Your task to perform on an android device: Play the last video I watched on Youtube Image 0: 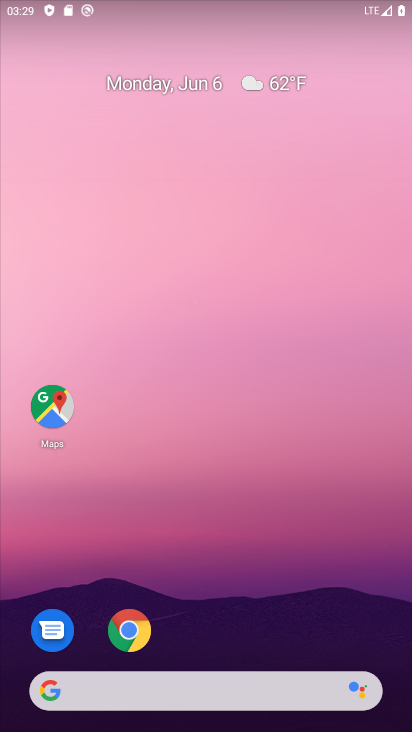
Step 0: drag from (294, 628) to (263, 71)
Your task to perform on an android device: Play the last video I watched on Youtube Image 1: 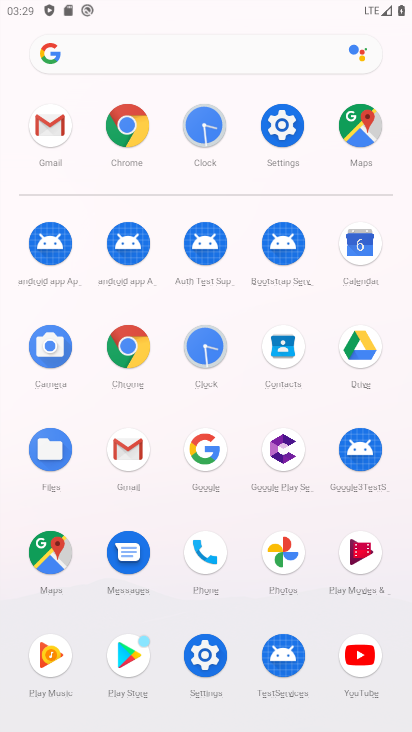
Step 1: click (360, 656)
Your task to perform on an android device: Play the last video I watched on Youtube Image 2: 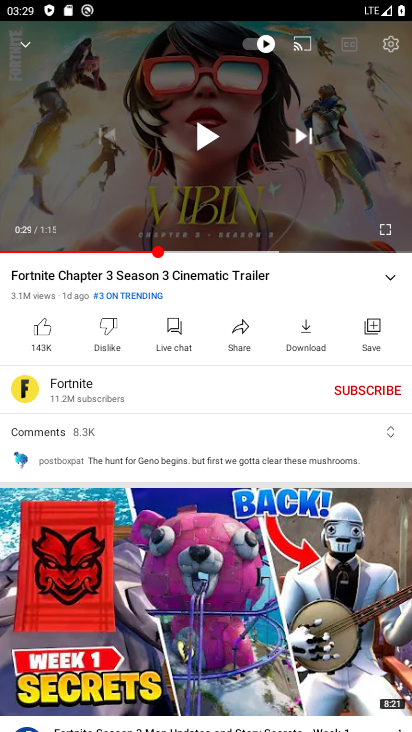
Step 2: task complete